Your task to perform on an android device: What is the recent news? Image 0: 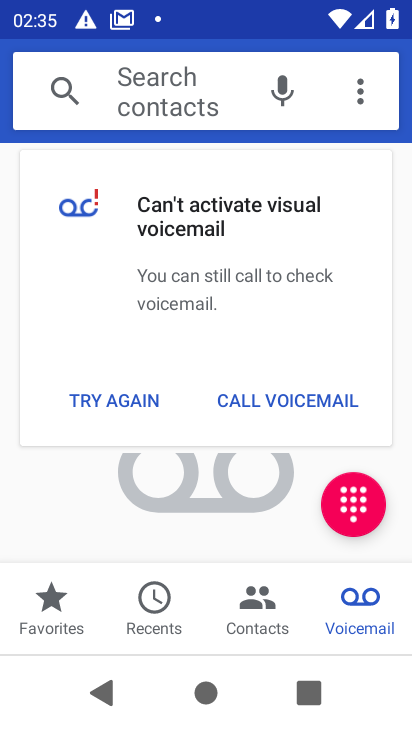
Step 0: press home button
Your task to perform on an android device: What is the recent news? Image 1: 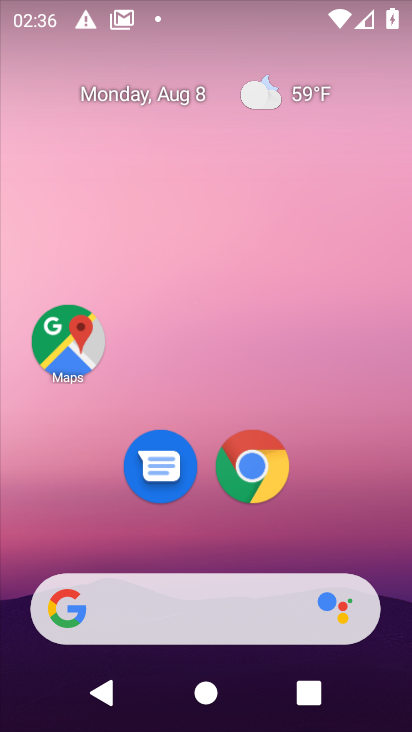
Step 1: drag from (168, 585) to (196, 0)
Your task to perform on an android device: What is the recent news? Image 2: 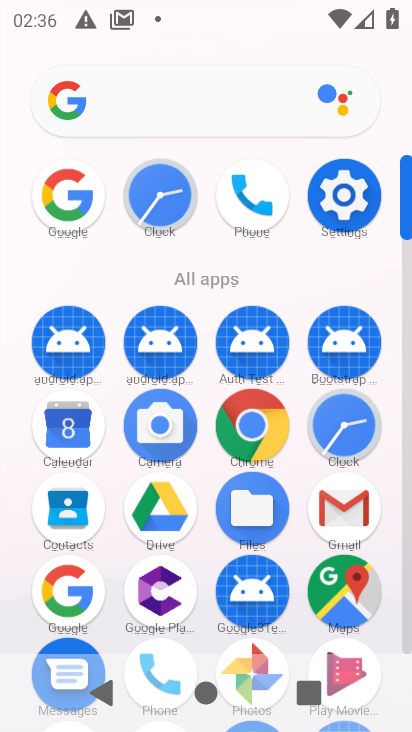
Step 2: click (239, 425)
Your task to perform on an android device: What is the recent news? Image 3: 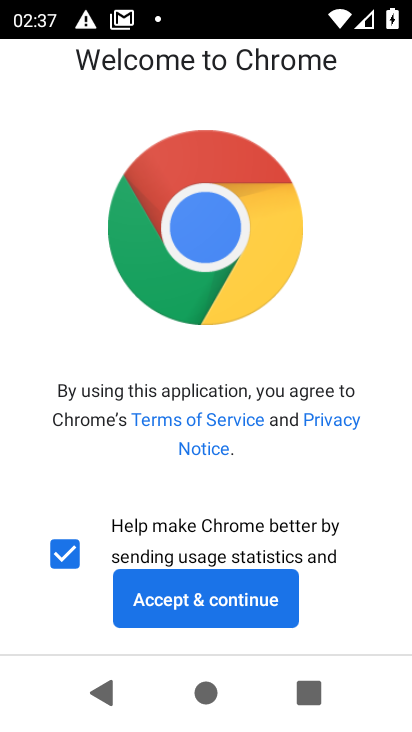
Step 3: click (181, 635)
Your task to perform on an android device: What is the recent news? Image 4: 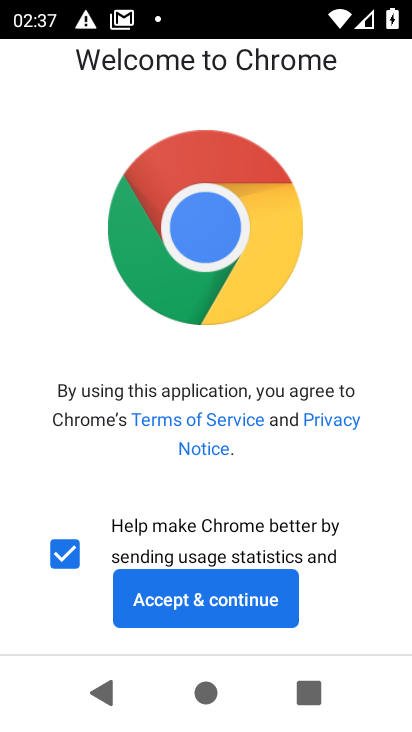
Step 4: click (199, 620)
Your task to perform on an android device: What is the recent news? Image 5: 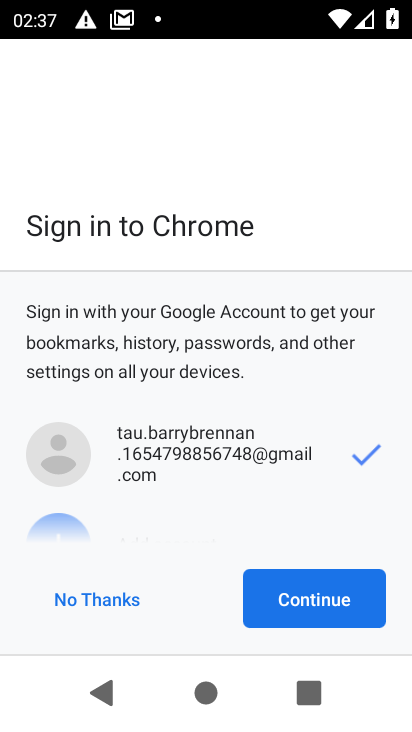
Step 5: click (310, 594)
Your task to perform on an android device: What is the recent news? Image 6: 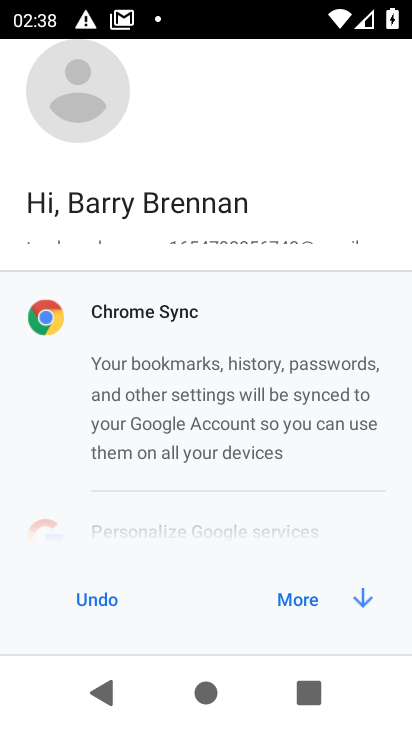
Step 6: click (310, 594)
Your task to perform on an android device: What is the recent news? Image 7: 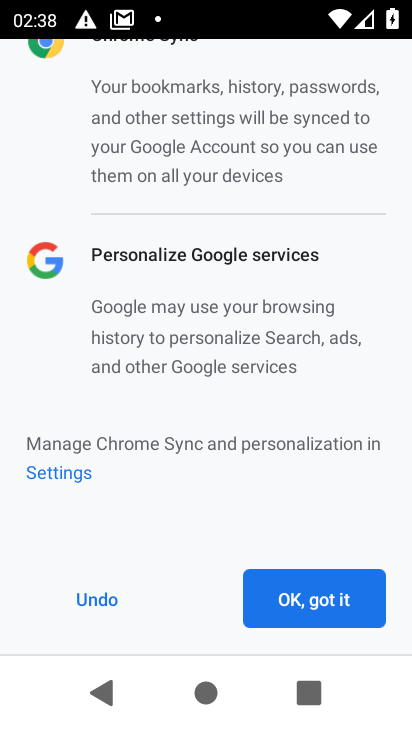
Step 7: click (310, 594)
Your task to perform on an android device: What is the recent news? Image 8: 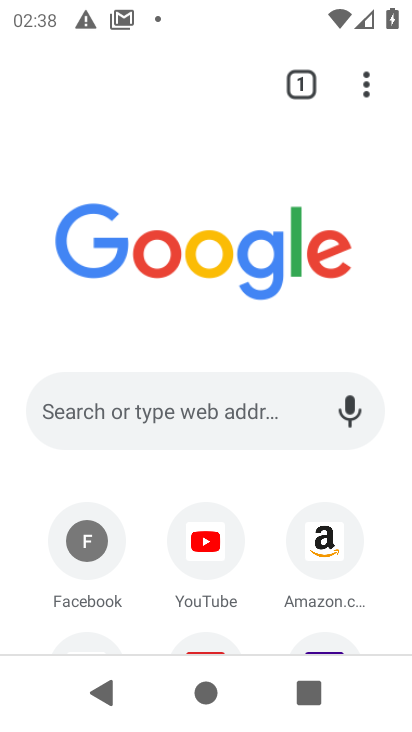
Step 8: click (198, 417)
Your task to perform on an android device: What is the recent news? Image 9: 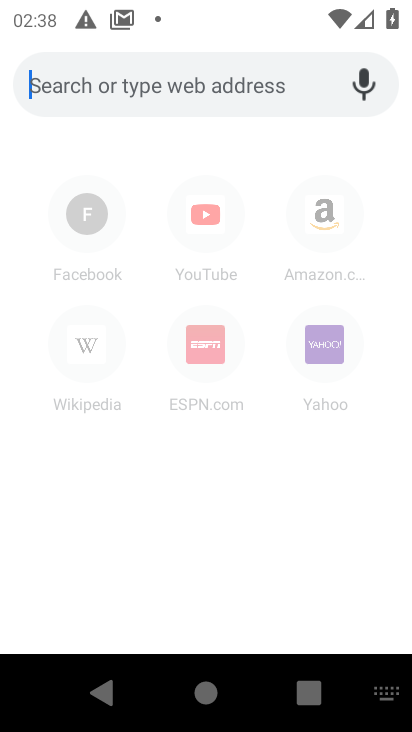
Step 9: type "recent news"
Your task to perform on an android device: What is the recent news? Image 10: 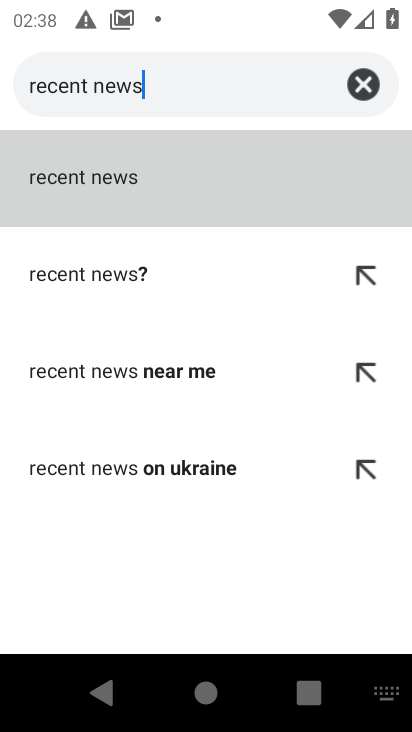
Step 10: click (184, 174)
Your task to perform on an android device: What is the recent news? Image 11: 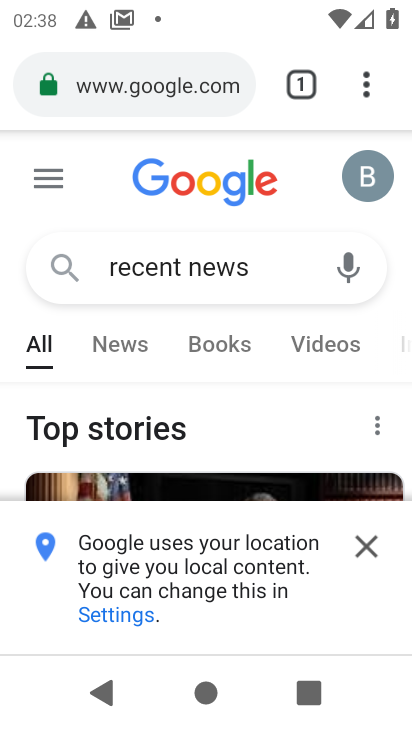
Step 11: task complete